Your task to perform on an android device: check google app version Image 0: 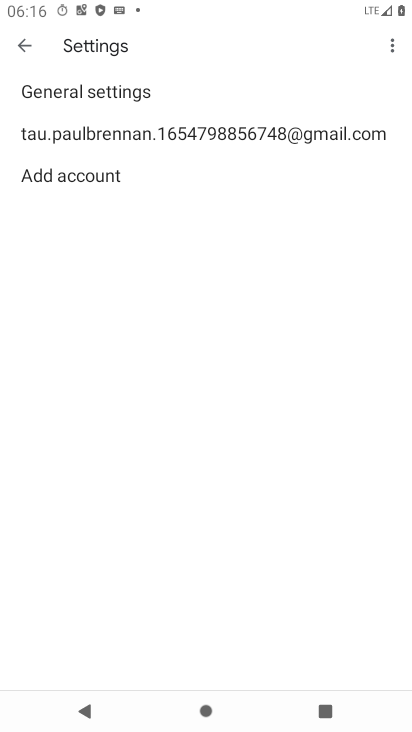
Step 0: press home button
Your task to perform on an android device: check google app version Image 1: 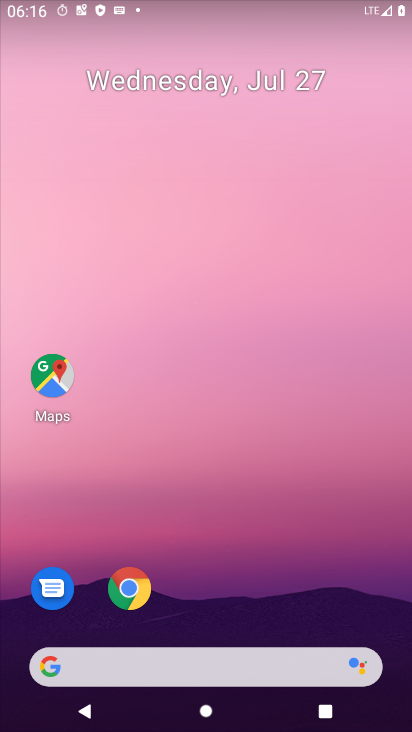
Step 1: drag from (259, 618) to (350, 1)
Your task to perform on an android device: check google app version Image 2: 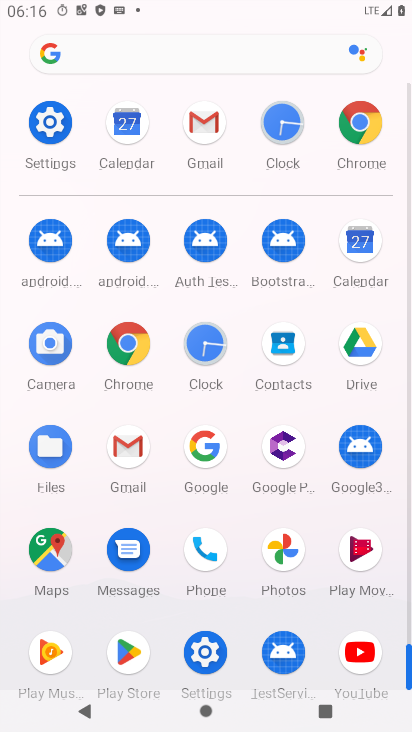
Step 2: click (134, 348)
Your task to perform on an android device: check google app version Image 3: 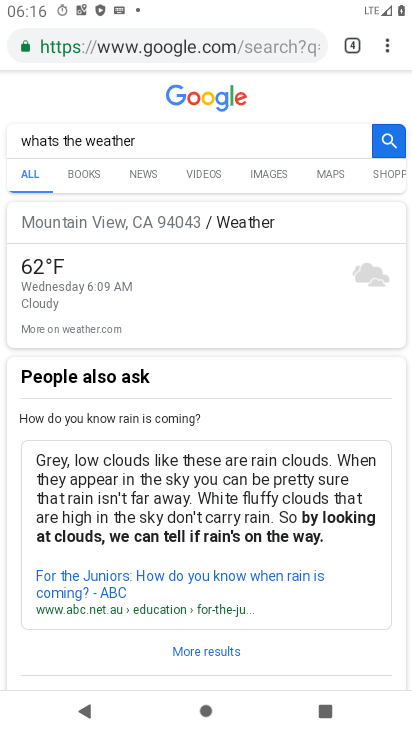
Step 3: click (387, 41)
Your task to perform on an android device: check google app version Image 4: 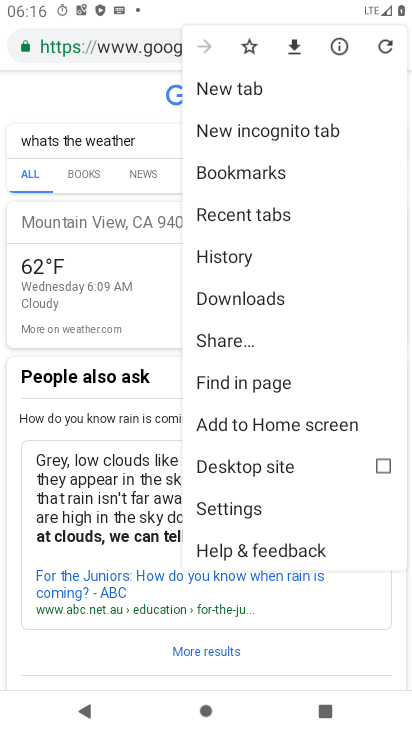
Step 4: click (241, 540)
Your task to perform on an android device: check google app version Image 5: 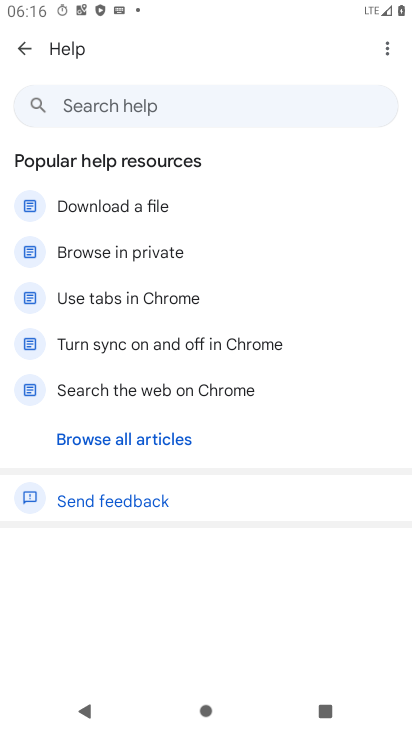
Step 5: click (389, 48)
Your task to perform on an android device: check google app version Image 6: 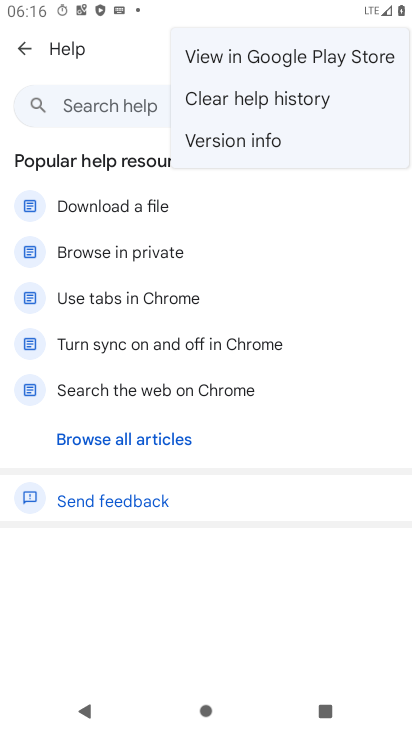
Step 6: click (297, 139)
Your task to perform on an android device: check google app version Image 7: 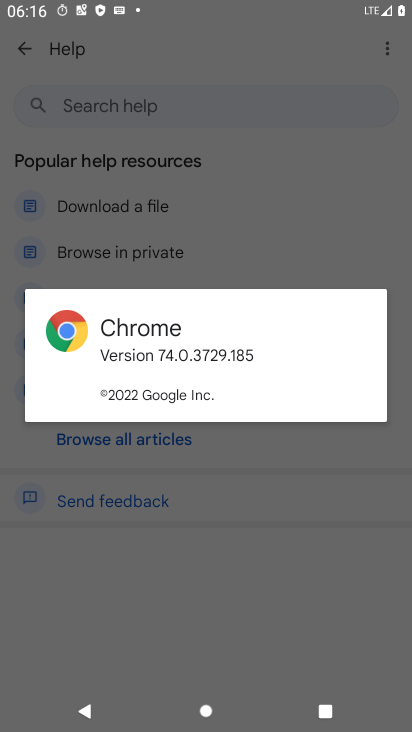
Step 7: task complete